Your task to perform on an android device: What's the weather going to be this weekend? Image 0: 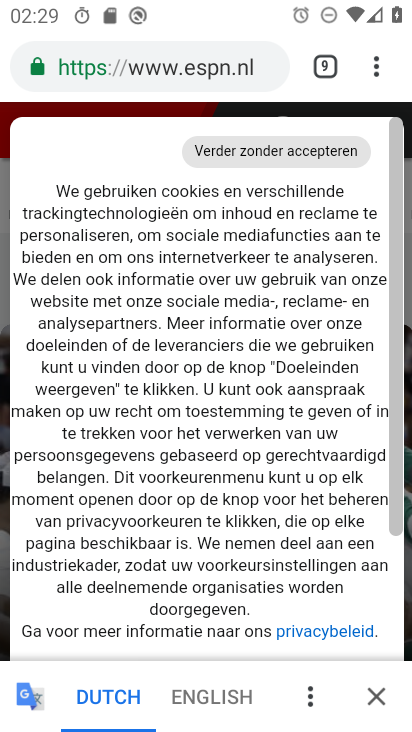
Step 0: press home button
Your task to perform on an android device: What's the weather going to be this weekend? Image 1: 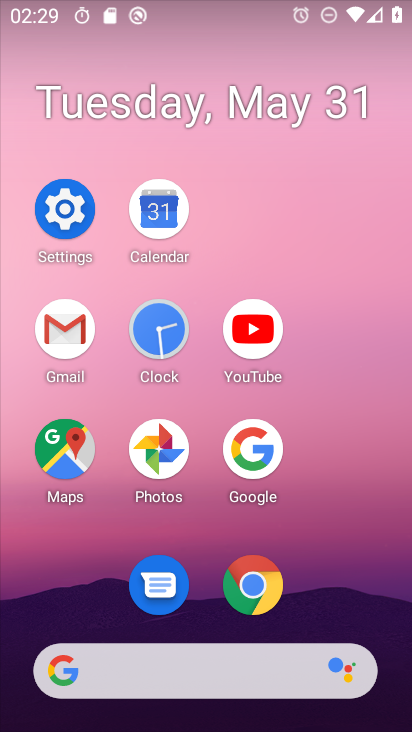
Step 1: click (257, 459)
Your task to perform on an android device: What's the weather going to be this weekend? Image 2: 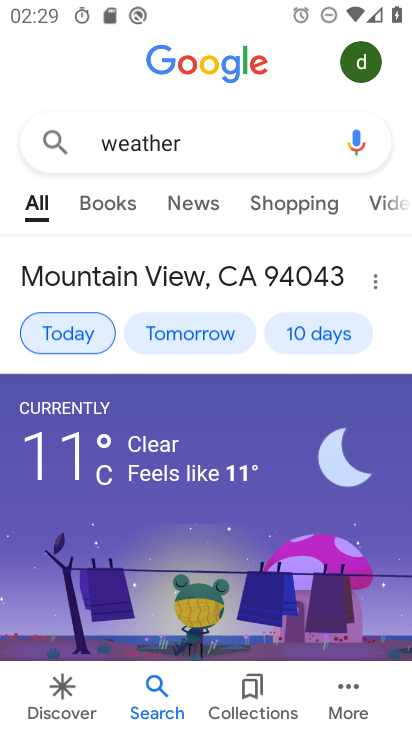
Step 2: click (308, 328)
Your task to perform on an android device: What's the weather going to be this weekend? Image 3: 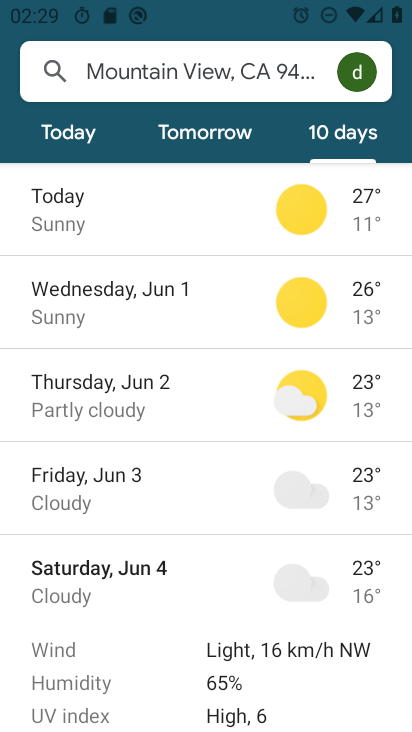
Step 3: task complete